Your task to perform on an android device: turn on javascript in the chrome app Image 0: 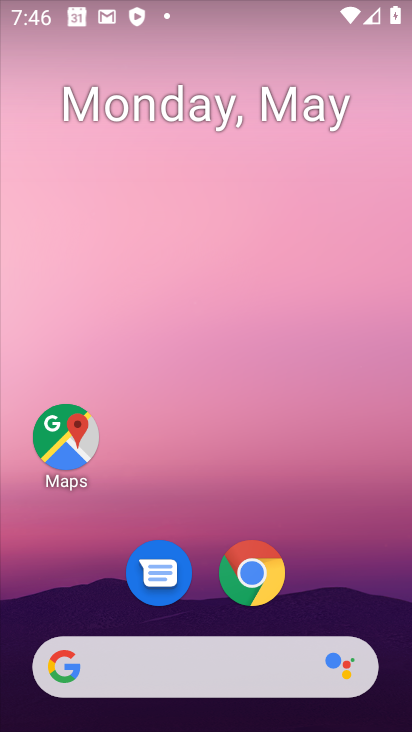
Step 0: click (277, 577)
Your task to perform on an android device: turn on javascript in the chrome app Image 1: 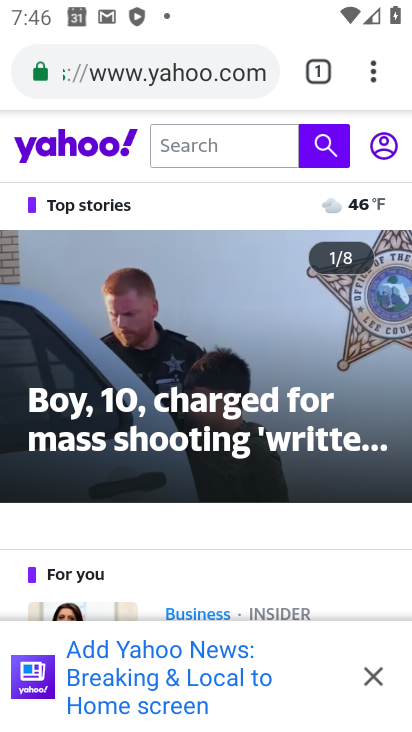
Step 1: click (387, 67)
Your task to perform on an android device: turn on javascript in the chrome app Image 2: 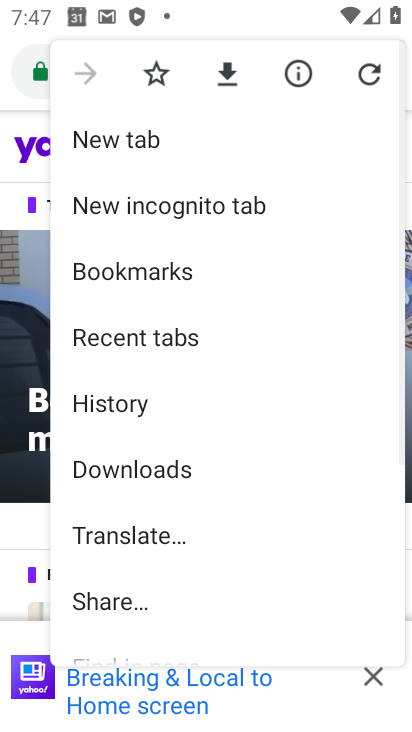
Step 2: drag from (258, 388) to (288, 193)
Your task to perform on an android device: turn on javascript in the chrome app Image 3: 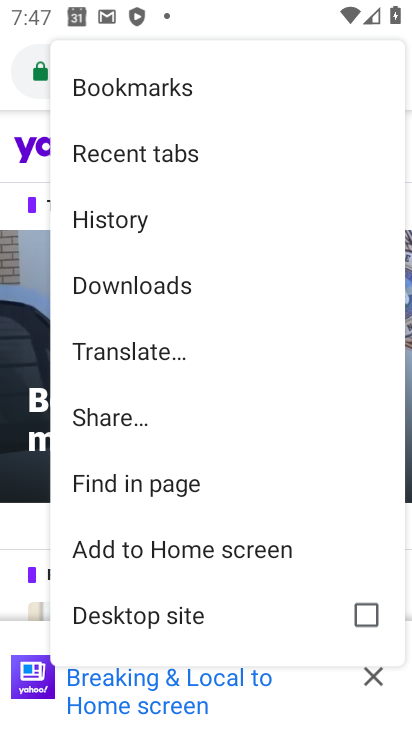
Step 3: drag from (173, 492) to (239, 138)
Your task to perform on an android device: turn on javascript in the chrome app Image 4: 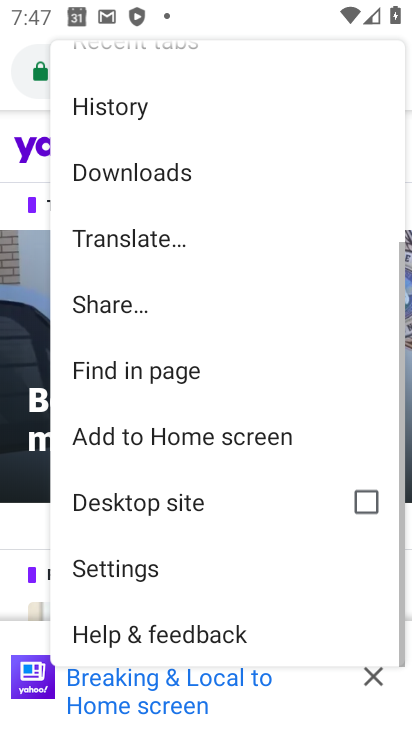
Step 4: click (138, 578)
Your task to perform on an android device: turn on javascript in the chrome app Image 5: 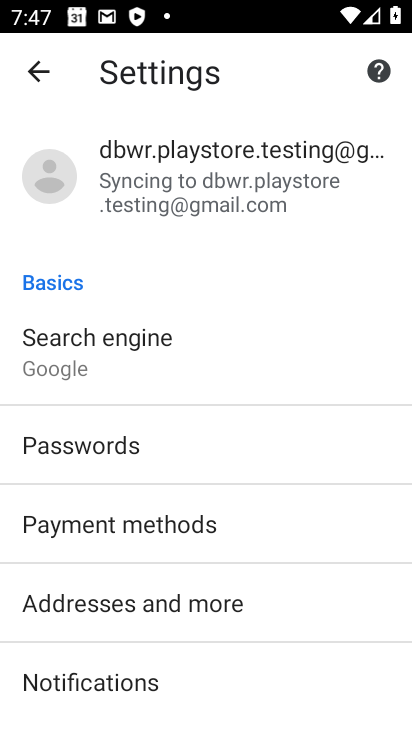
Step 5: drag from (139, 573) to (186, 289)
Your task to perform on an android device: turn on javascript in the chrome app Image 6: 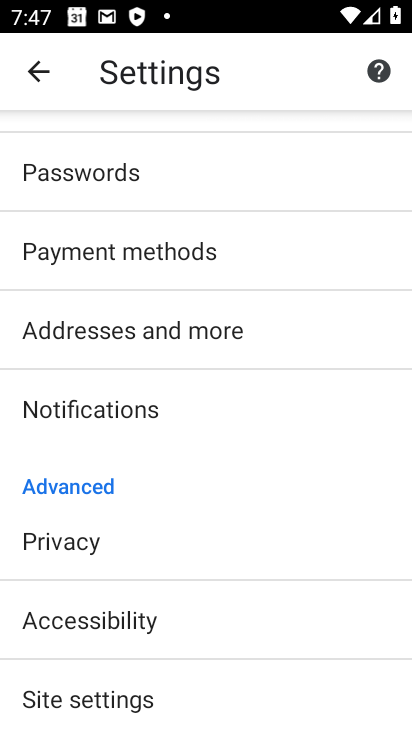
Step 6: click (133, 712)
Your task to perform on an android device: turn on javascript in the chrome app Image 7: 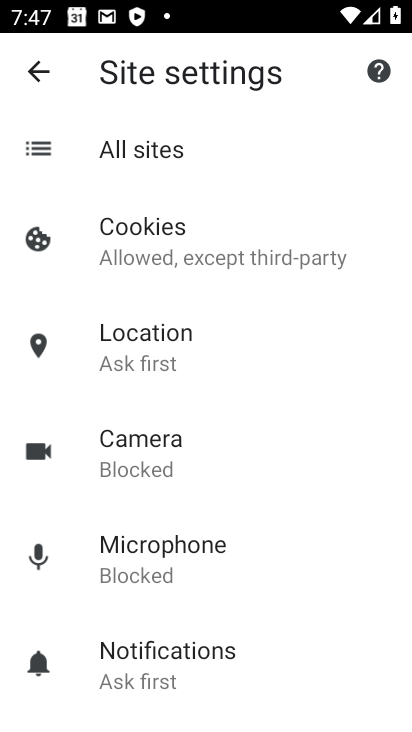
Step 7: drag from (162, 621) to (191, 402)
Your task to perform on an android device: turn on javascript in the chrome app Image 8: 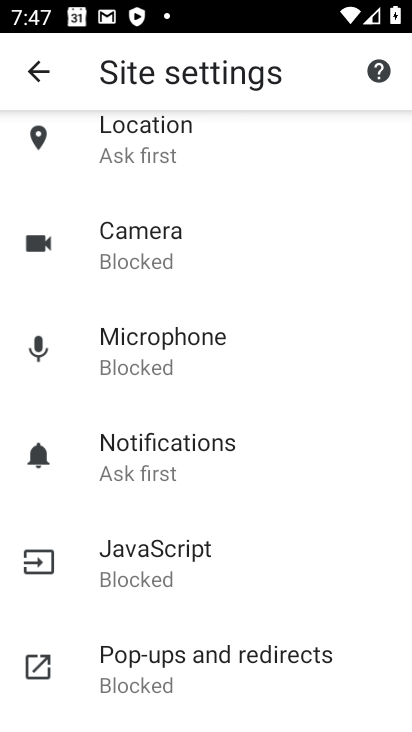
Step 8: click (170, 563)
Your task to perform on an android device: turn on javascript in the chrome app Image 9: 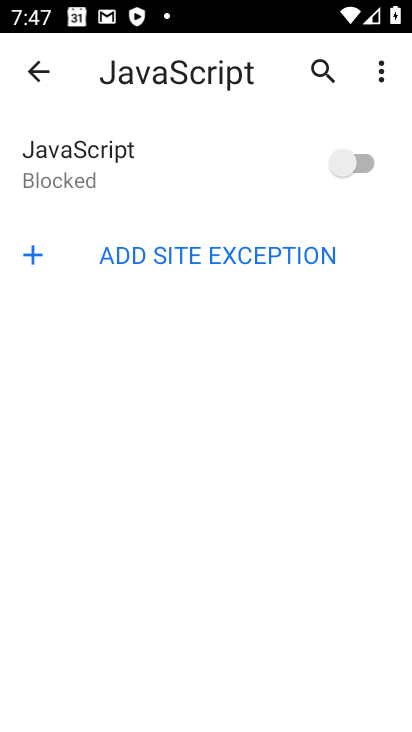
Step 9: click (372, 169)
Your task to perform on an android device: turn on javascript in the chrome app Image 10: 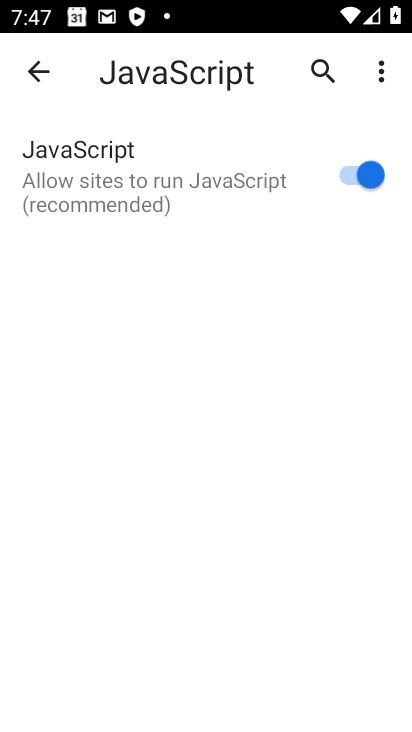
Step 10: task complete